Your task to perform on an android device: Go to display settings Image 0: 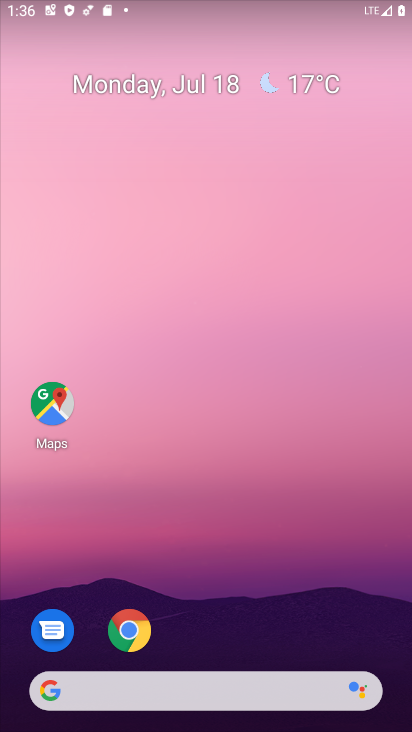
Step 0: drag from (273, 606) to (276, 54)
Your task to perform on an android device: Go to display settings Image 1: 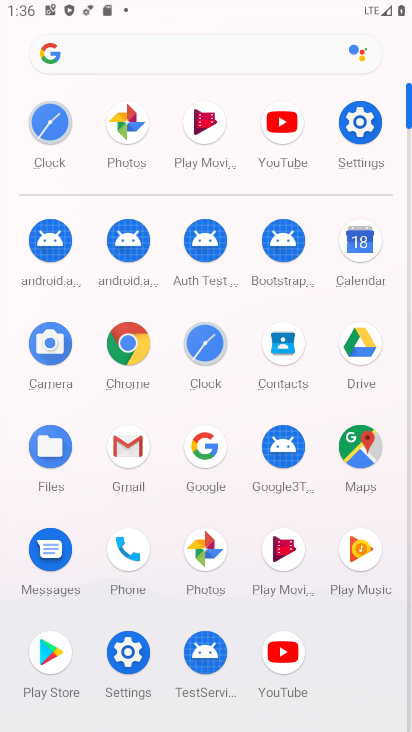
Step 1: click (366, 127)
Your task to perform on an android device: Go to display settings Image 2: 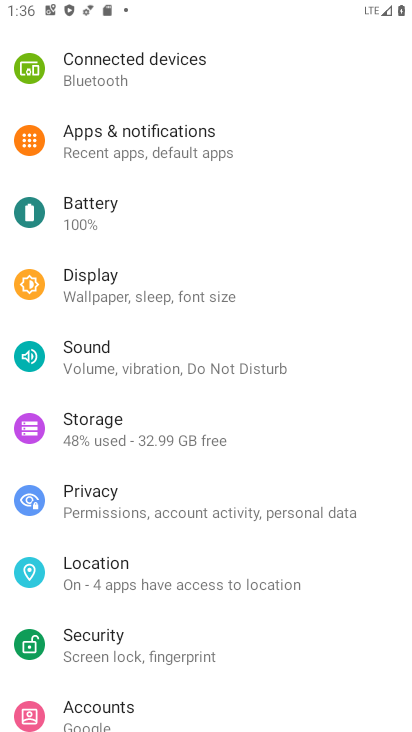
Step 2: click (163, 292)
Your task to perform on an android device: Go to display settings Image 3: 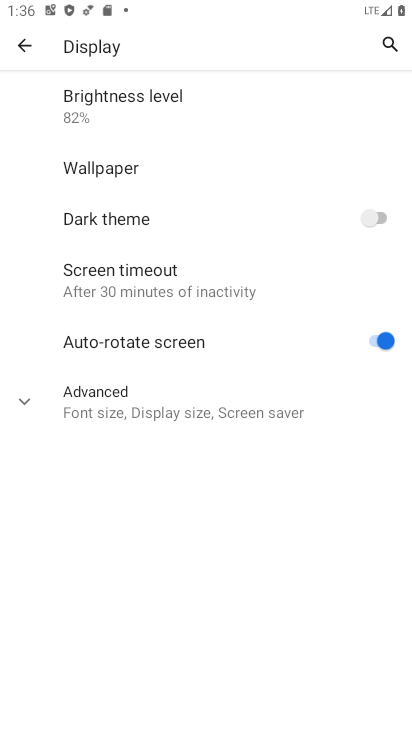
Step 3: click (28, 400)
Your task to perform on an android device: Go to display settings Image 4: 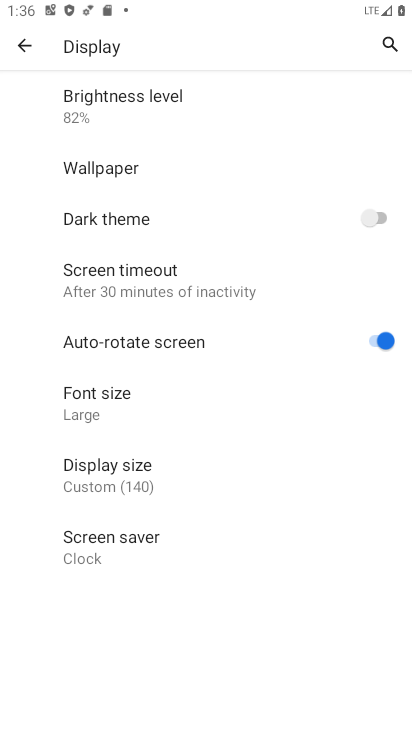
Step 4: task complete